Your task to perform on an android device: turn off data saver in the chrome app Image 0: 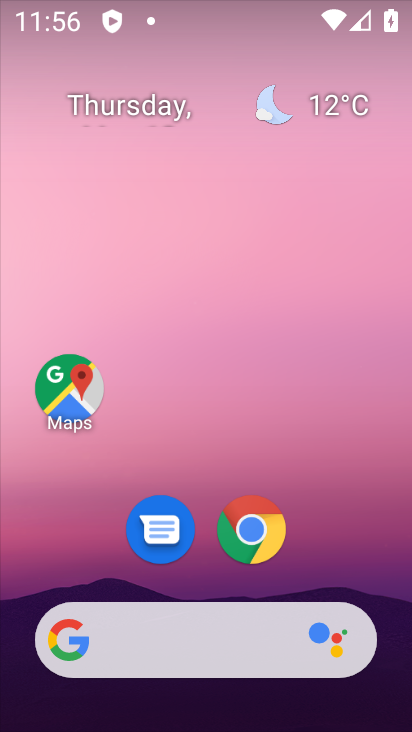
Step 0: drag from (333, 578) to (290, 254)
Your task to perform on an android device: turn off data saver in the chrome app Image 1: 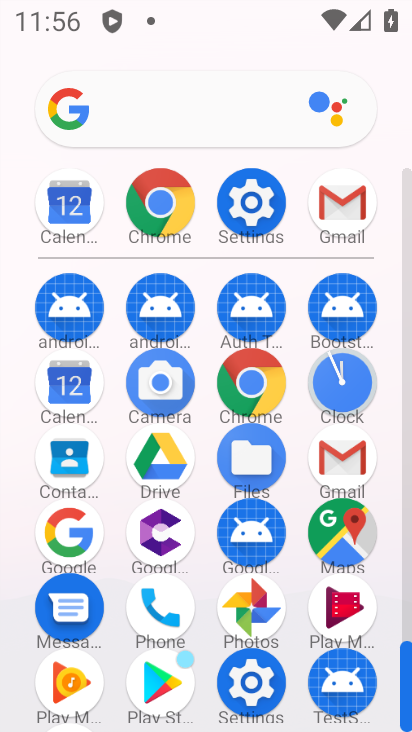
Step 1: click (260, 375)
Your task to perform on an android device: turn off data saver in the chrome app Image 2: 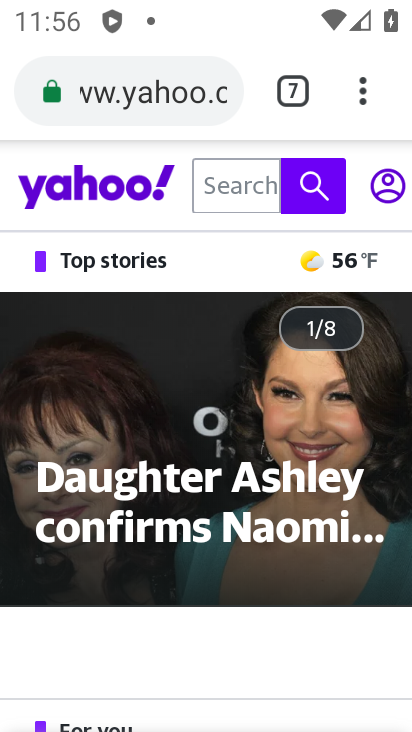
Step 2: click (346, 86)
Your task to perform on an android device: turn off data saver in the chrome app Image 3: 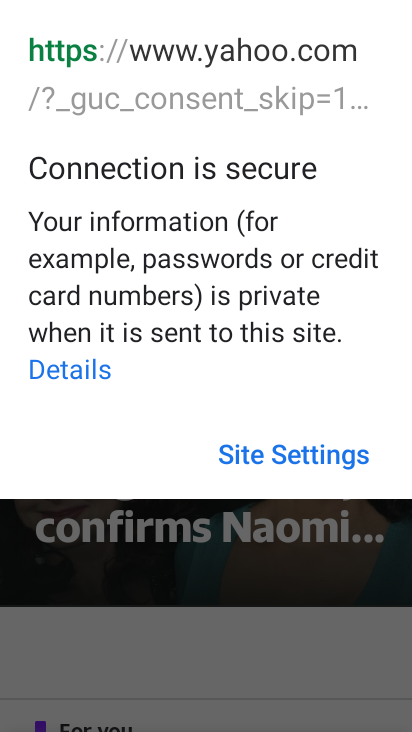
Step 3: press back button
Your task to perform on an android device: turn off data saver in the chrome app Image 4: 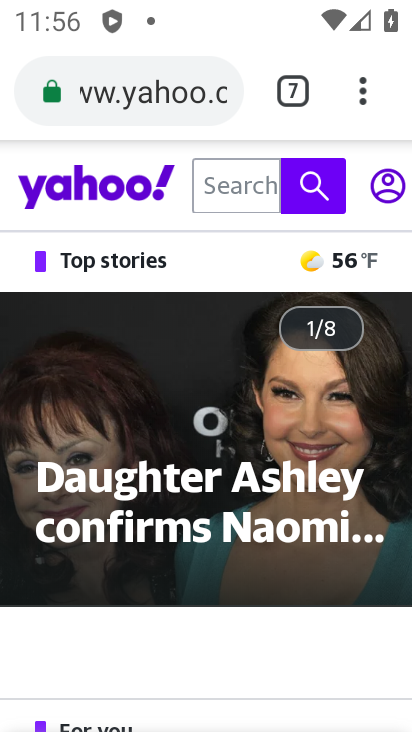
Step 4: click (378, 86)
Your task to perform on an android device: turn off data saver in the chrome app Image 5: 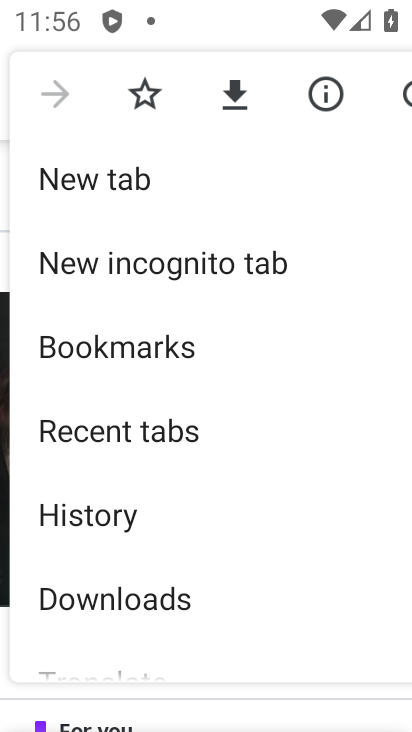
Step 5: drag from (197, 492) to (216, 256)
Your task to perform on an android device: turn off data saver in the chrome app Image 6: 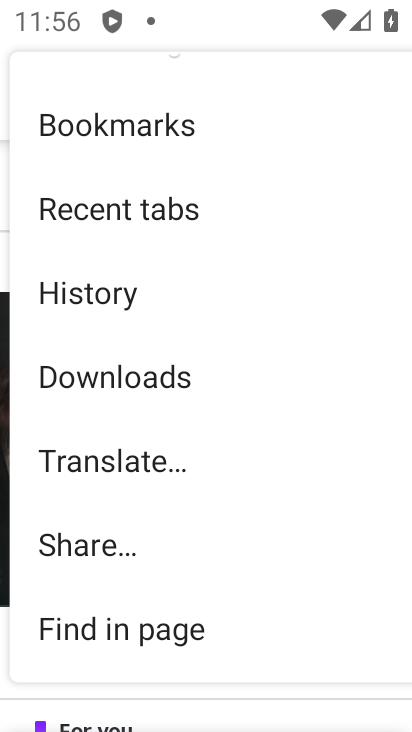
Step 6: drag from (129, 585) to (187, 310)
Your task to perform on an android device: turn off data saver in the chrome app Image 7: 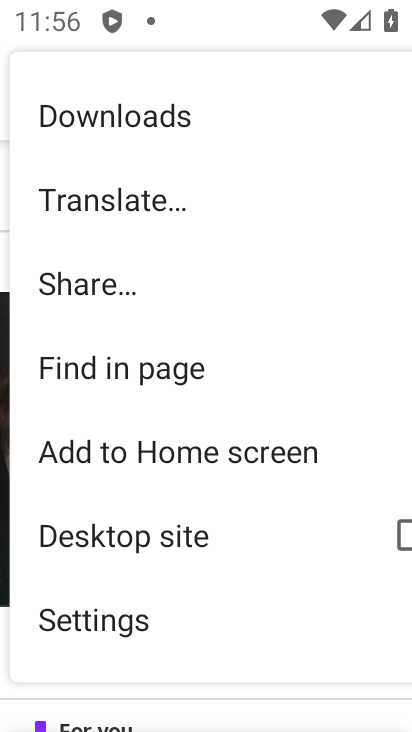
Step 7: drag from (152, 484) to (193, 210)
Your task to perform on an android device: turn off data saver in the chrome app Image 8: 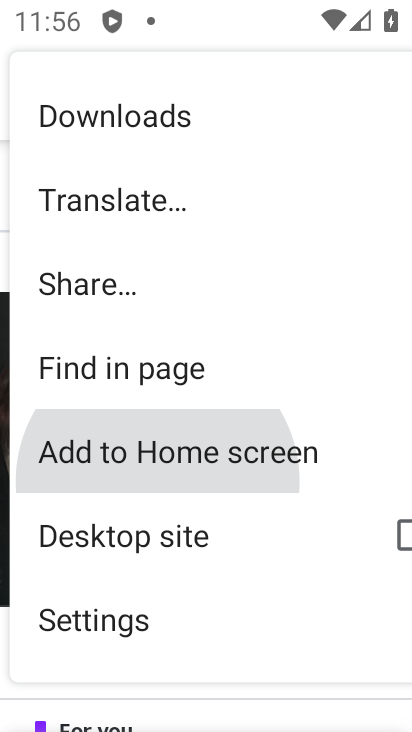
Step 8: drag from (173, 594) to (274, 257)
Your task to perform on an android device: turn off data saver in the chrome app Image 9: 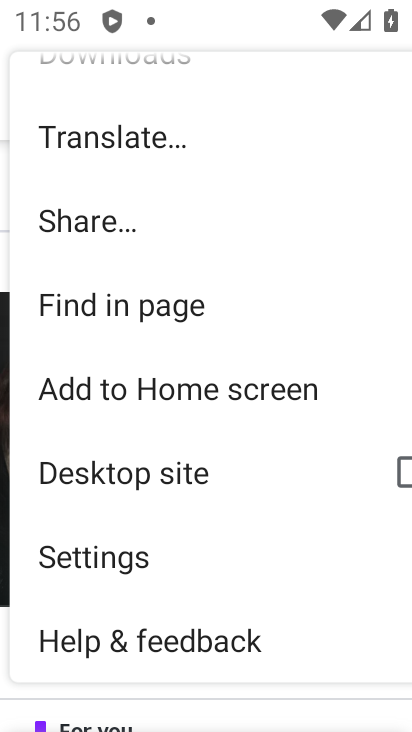
Step 9: click (163, 553)
Your task to perform on an android device: turn off data saver in the chrome app Image 10: 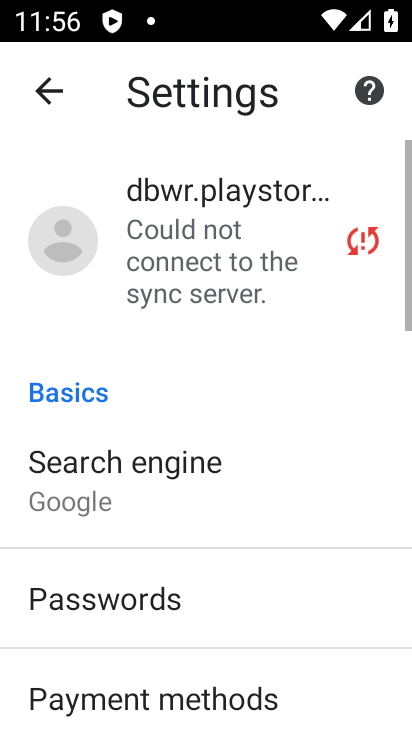
Step 10: drag from (176, 465) to (179, 280)
Your task to perform on an android device: turn off data saver in the chrome app Image 11: 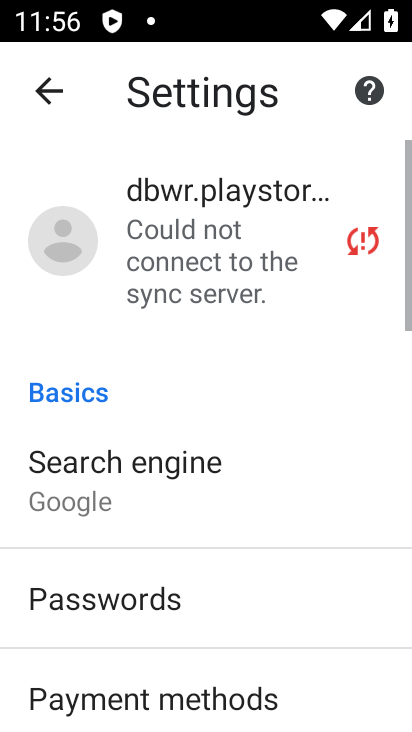
Step 11: drag from (109, 548) to (181, 296)
Your task to perform on an android device: turn off data saver in the chrome app Image 12: 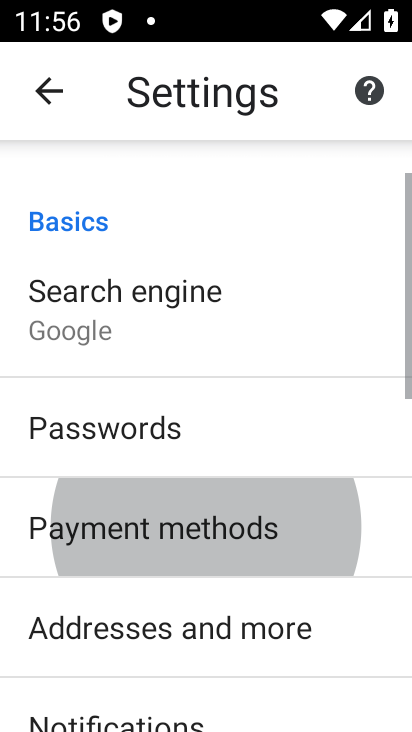
Step 12: drag from (155, 534) to (212, 221)
Your task to perform on an android device: turn off data saver in the chrome app Image 13: 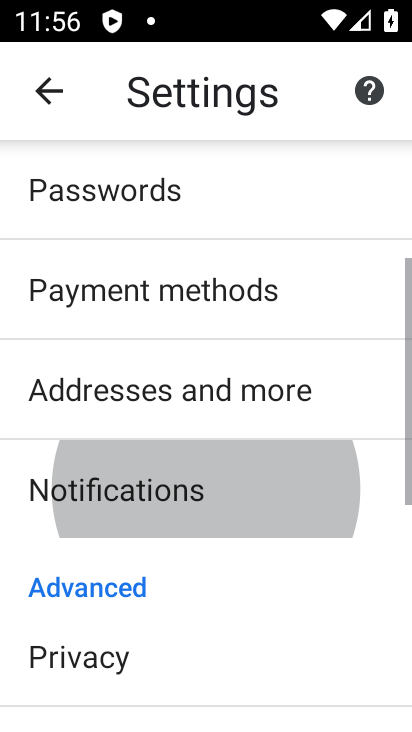
Step 13: drag from (180, 531) to (222, 303)
Your task to perform on an android device: turn off data saver in the chrome app Image 14: 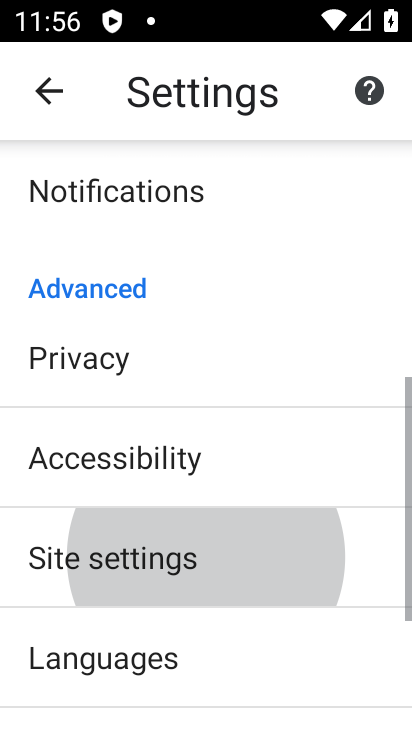
Step 14: drag from (208, 557) to (246, 293)
Your task to perform on an android device: turn off data saver in the chrome app Image 15: 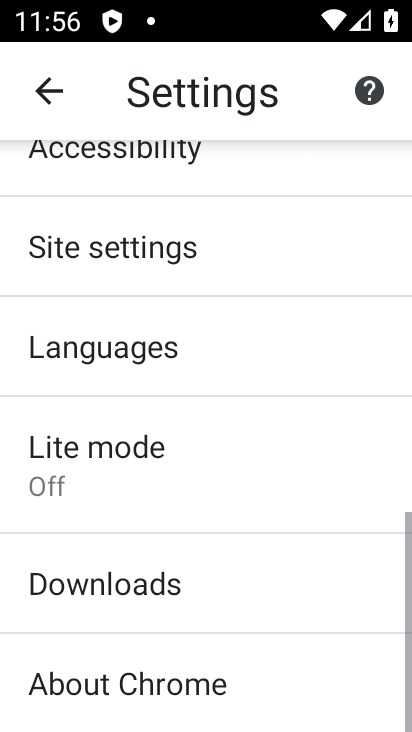
Step 15: click (170, 453)
Your task to perform on an android device: turn off data saver in the chrome app Image 16: 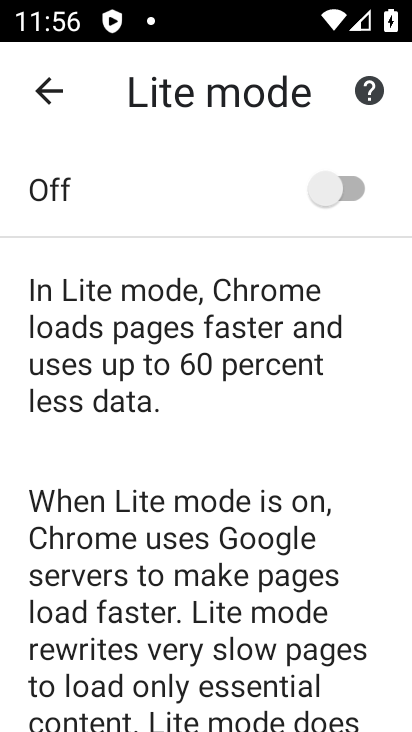
Step 16: task complete